Your task to perform on an android device: open app "Nova Launcher" (install if not already installed) Image 0: 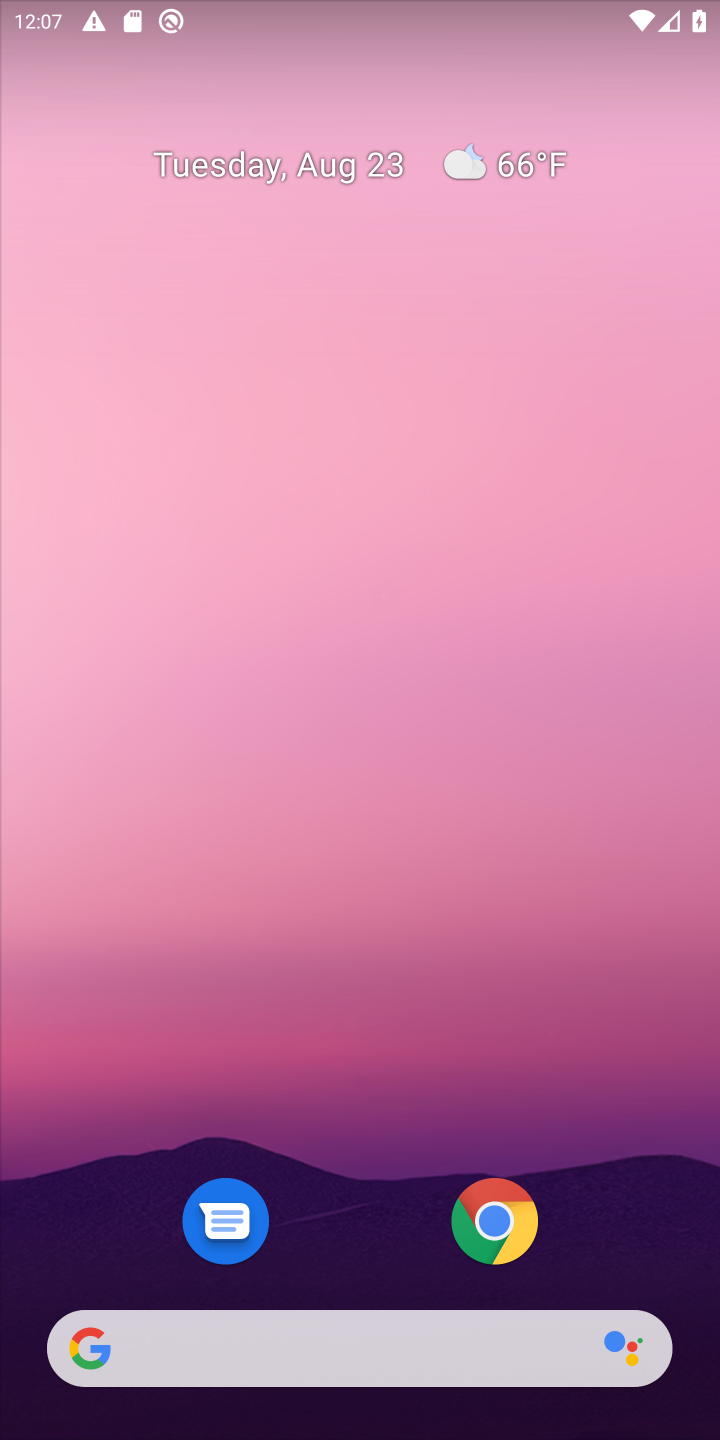
Step 0: drag from (394, 1223) to (405, 13)
Your task to perform on an android device: open app "Nova Launcher" (install if not already installed) Image 1: 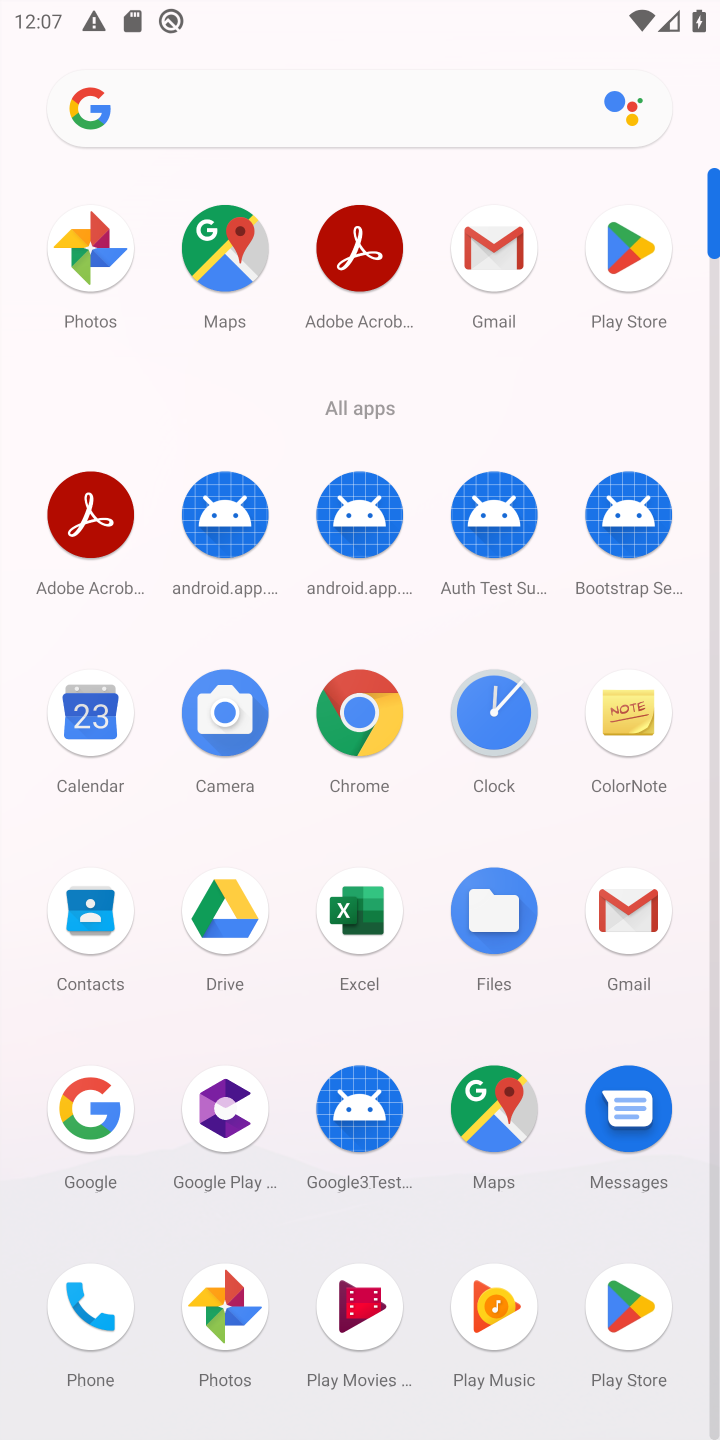
Step 1: click (615, 246)
Your task to perform on an android device: open app "Nova Launcher" (install if not already installed) Image 2: 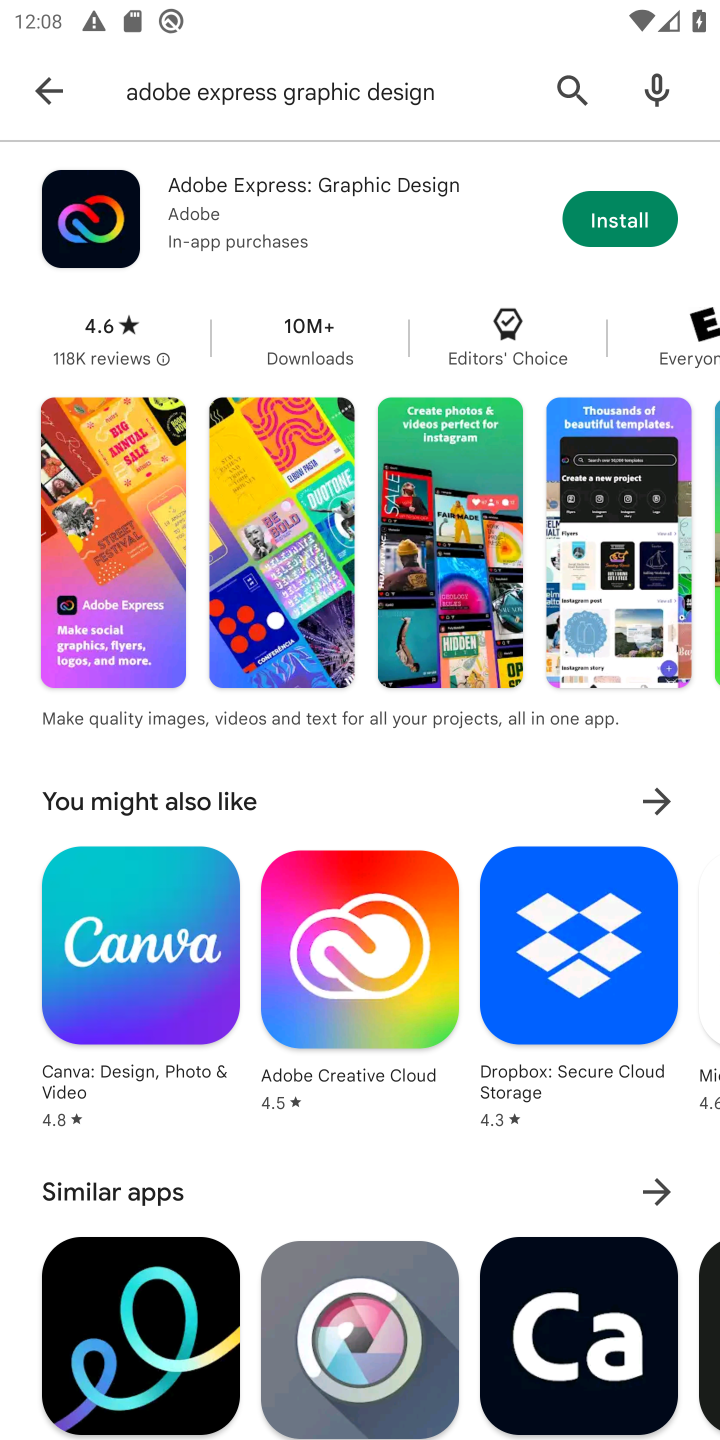
Step 2: click (565, 79)
Your task to perform on an android device: open app "Nova Launcher" (install if not already installed) Image 3: 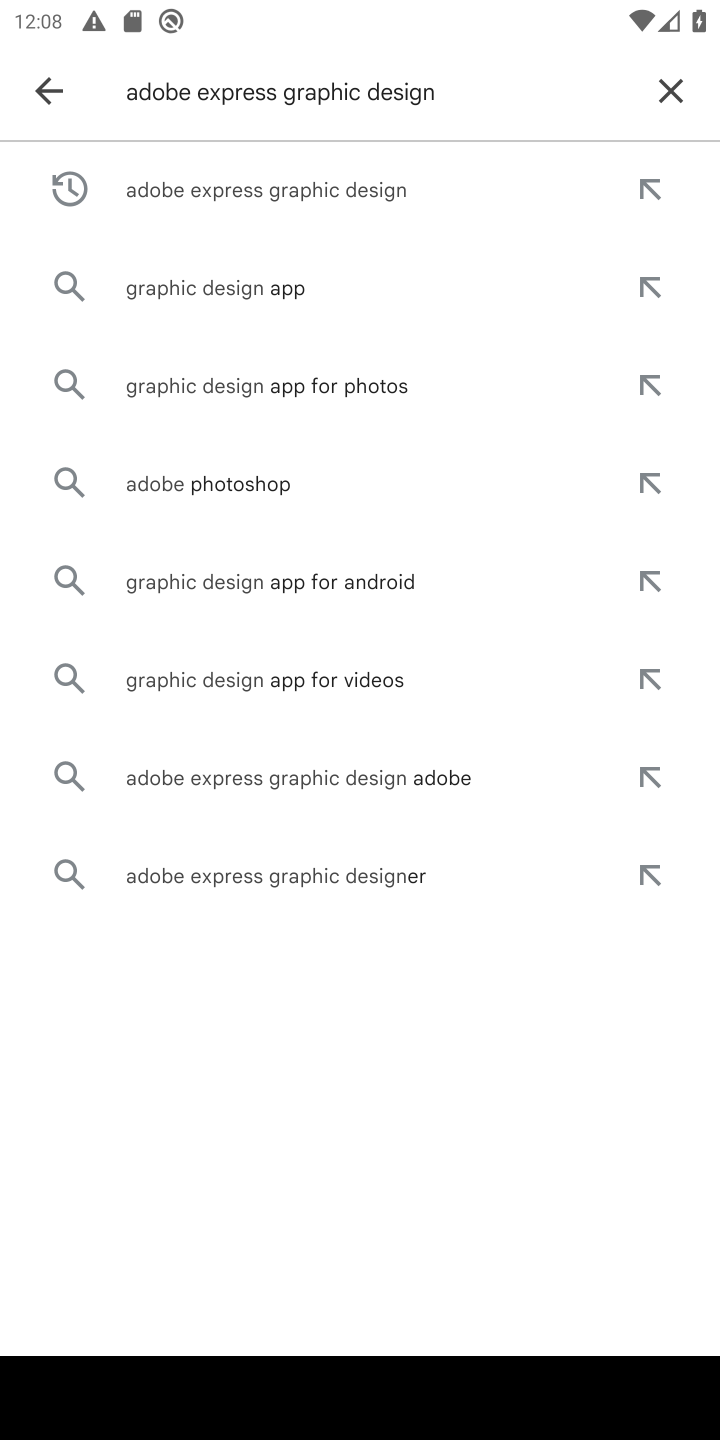
Step 3: click (680, 72)
Your task to perform on an android device: open app "Nova Launcher" (install if not already installed) Image 4: 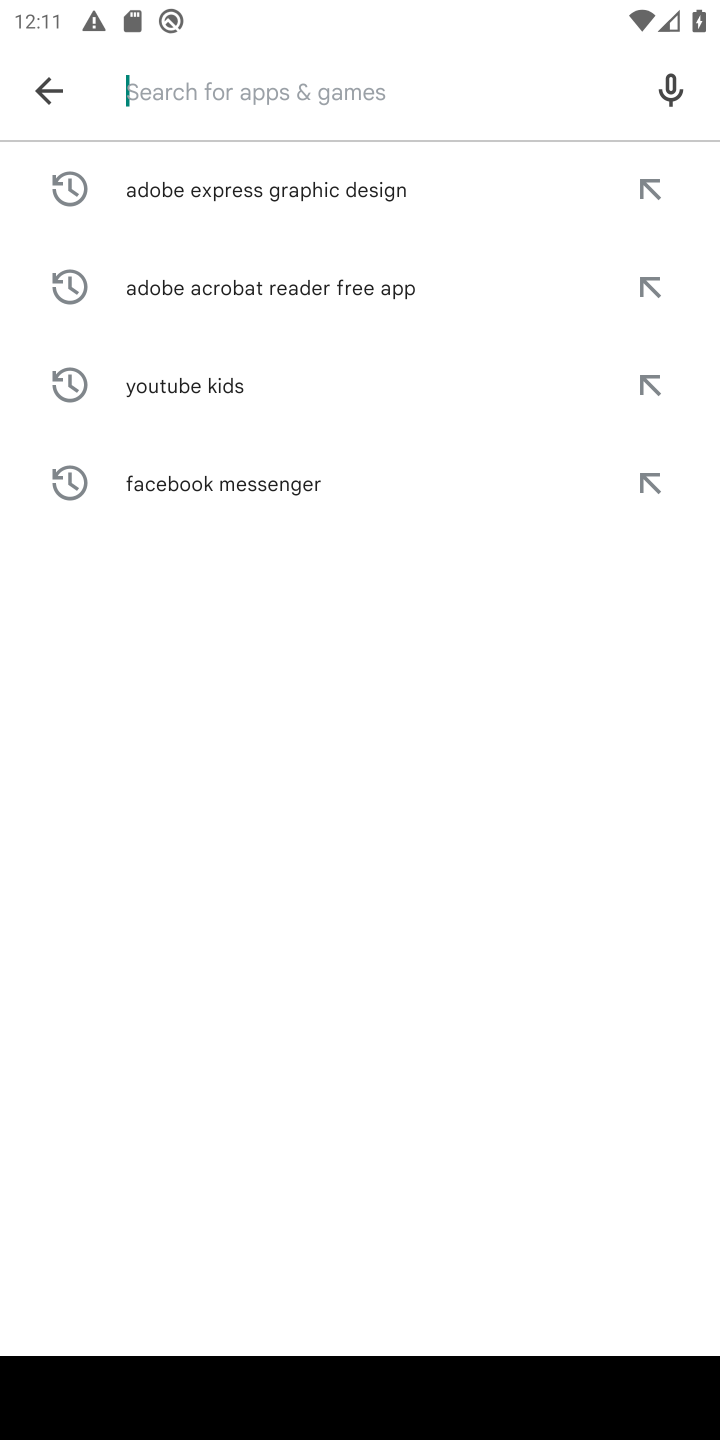
Step 4: click (327, 741)
Your task to perform on an android device: open app "Nova Launcher" (install if not already installed) Image 5: 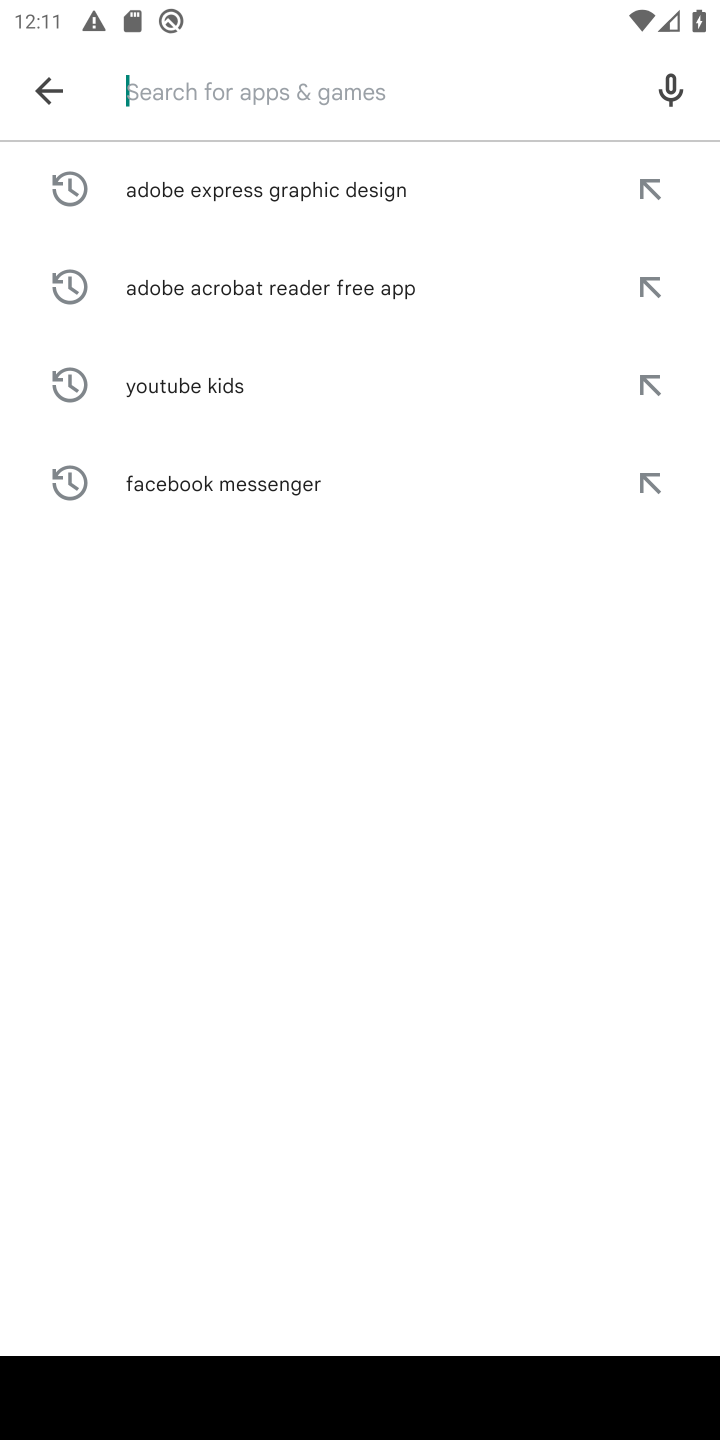
Step 5: type "Nova Launcher"
Your task to perform on an android device: open app "Nova Launcher" (install if not already installed) Image 6: 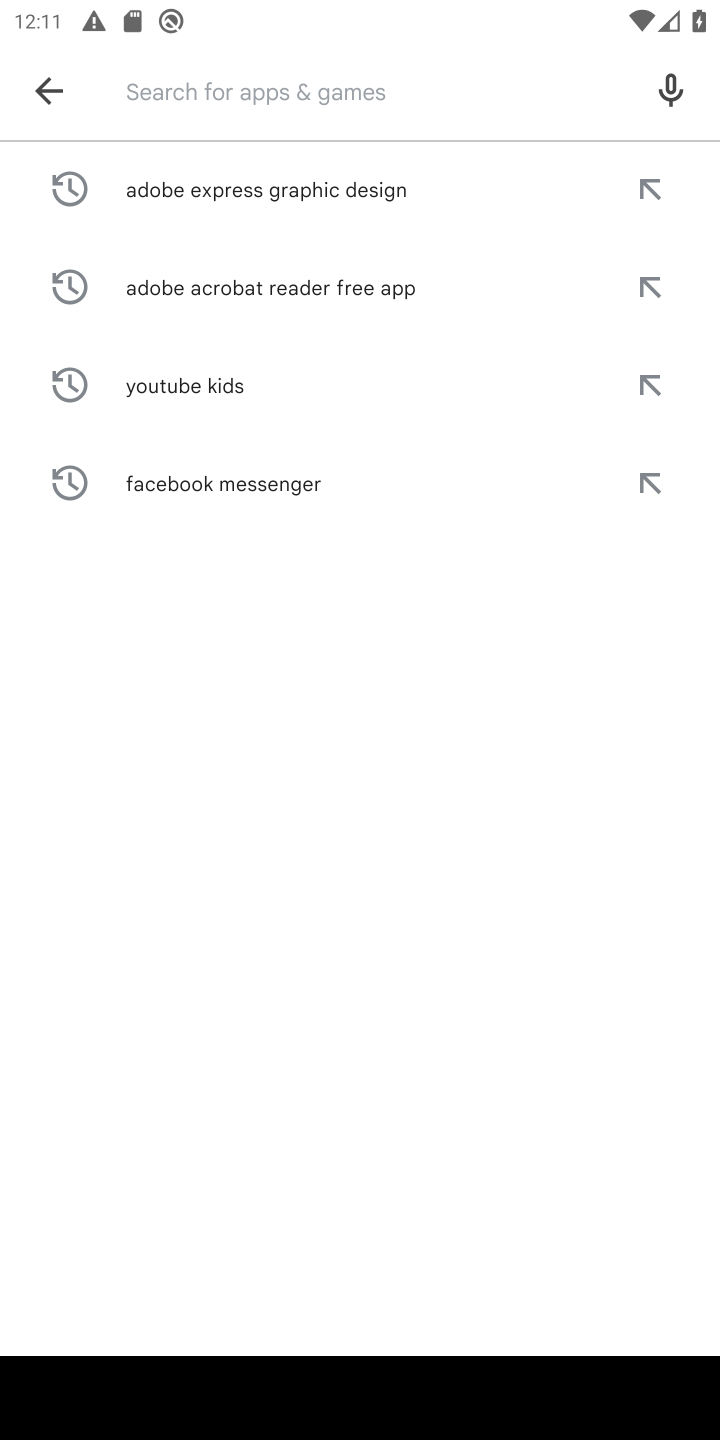
Step 6: click (479, 830)
Your task to perform on an android device: open app "Nova Launcher" (install if not already installed) Image 7: 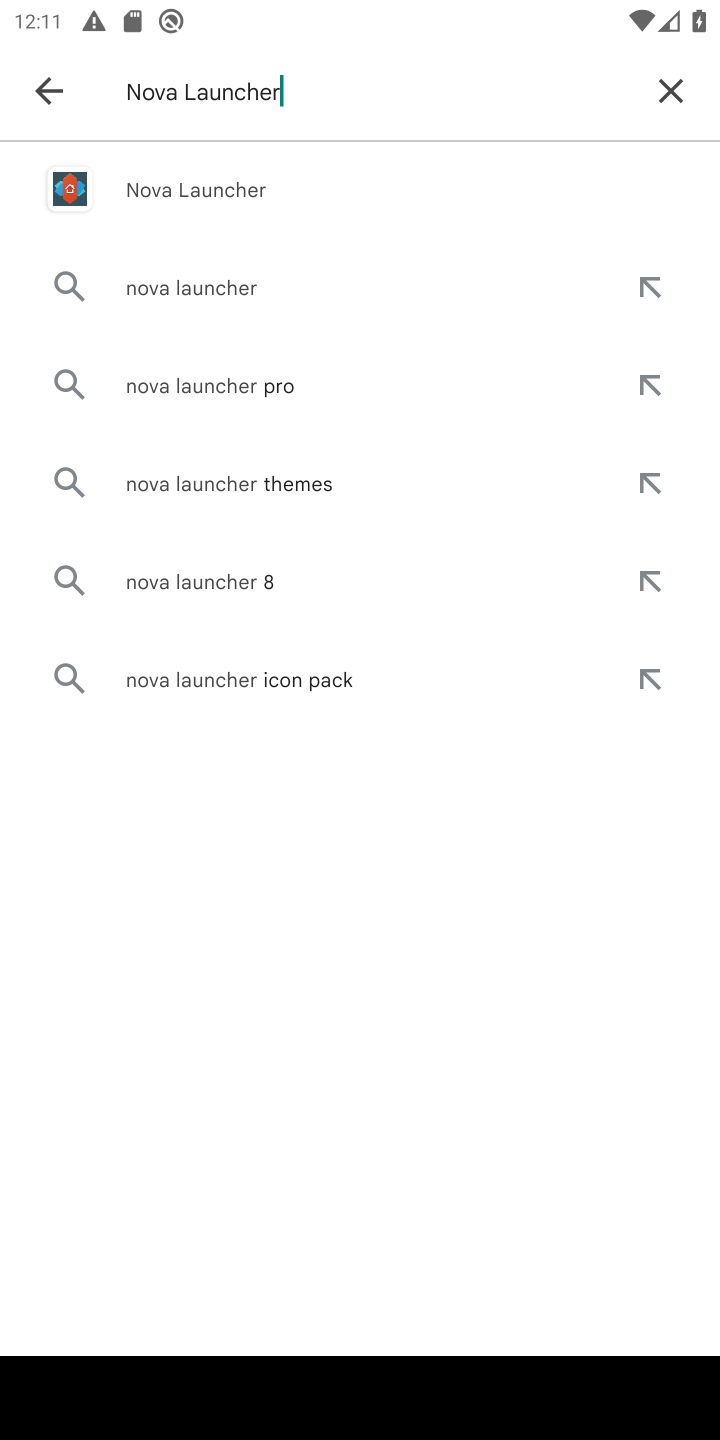
Step 7: click (287, 186)
Your task to perform on an android device: open app "Nova Launcher" (install if not already installed) Image 8: 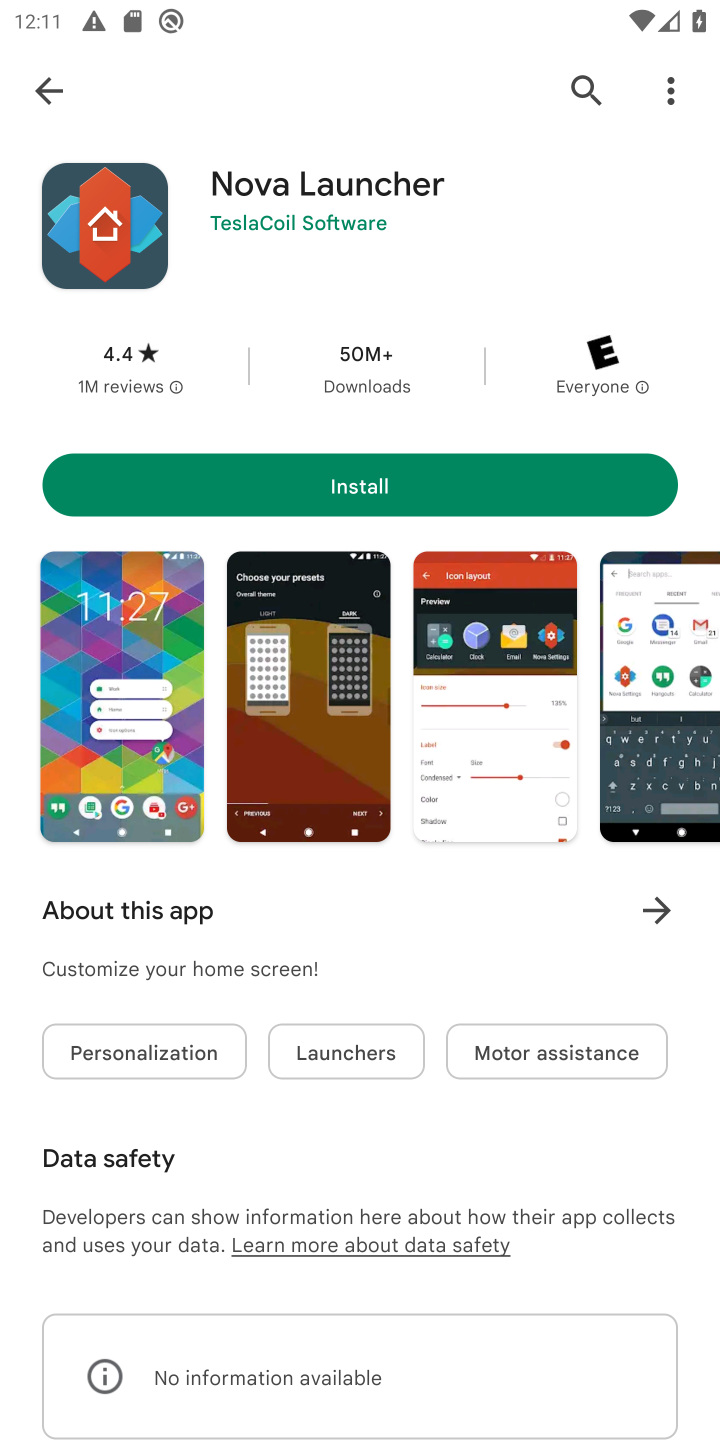
Step 8: click (372, 493)
Your task to perform on an android device: open app "Nova Launcher" (install if not already installed) Image 9: 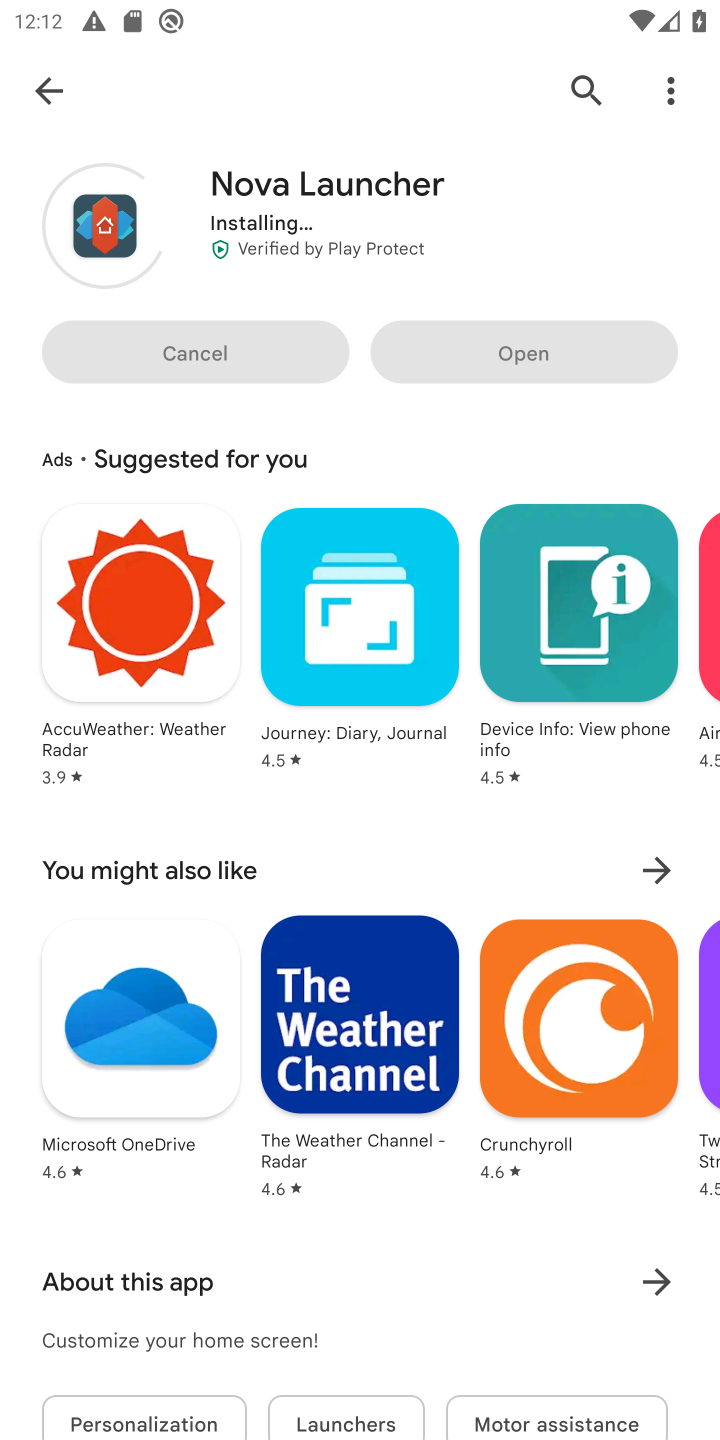
Step 9: press back button
Your task to perform on an android device: open app "Nova Launcher" (install if not already installed) Image 10: 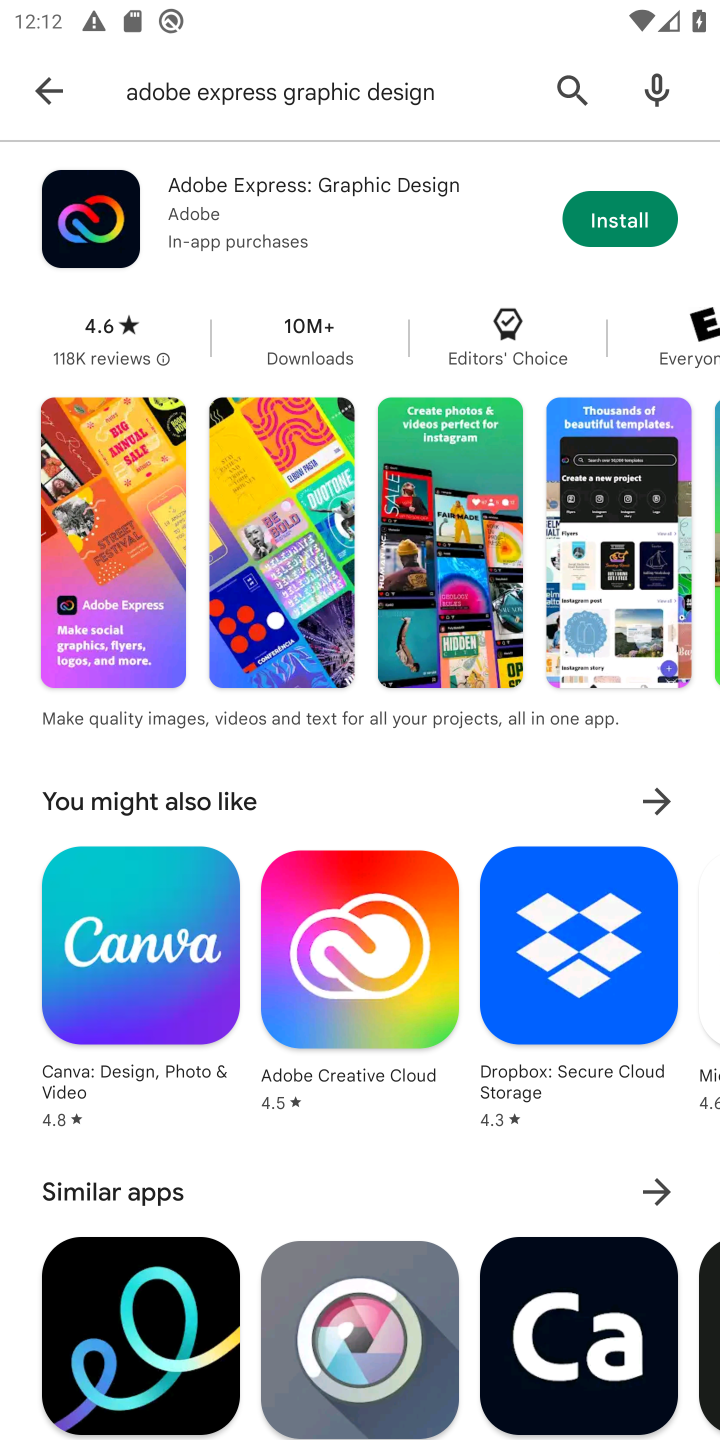
Step 10: click (623, 218)
Your task to perform on an android device: open app "Nova Launcher" (install if not already installed) Image 11: 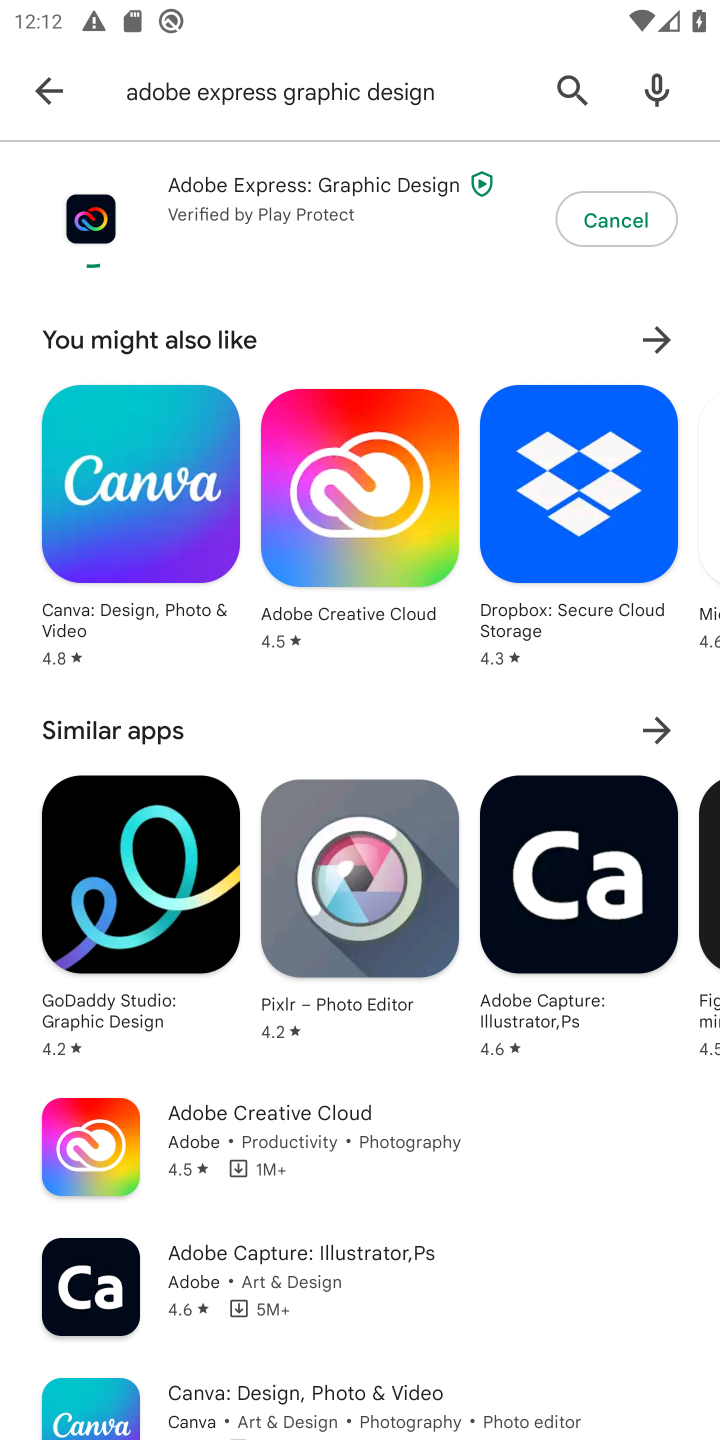
Step 11: click (581, 225)
Your task to perform on an android device: open app "Nova Launcher" (install if not already installed) Image 12: 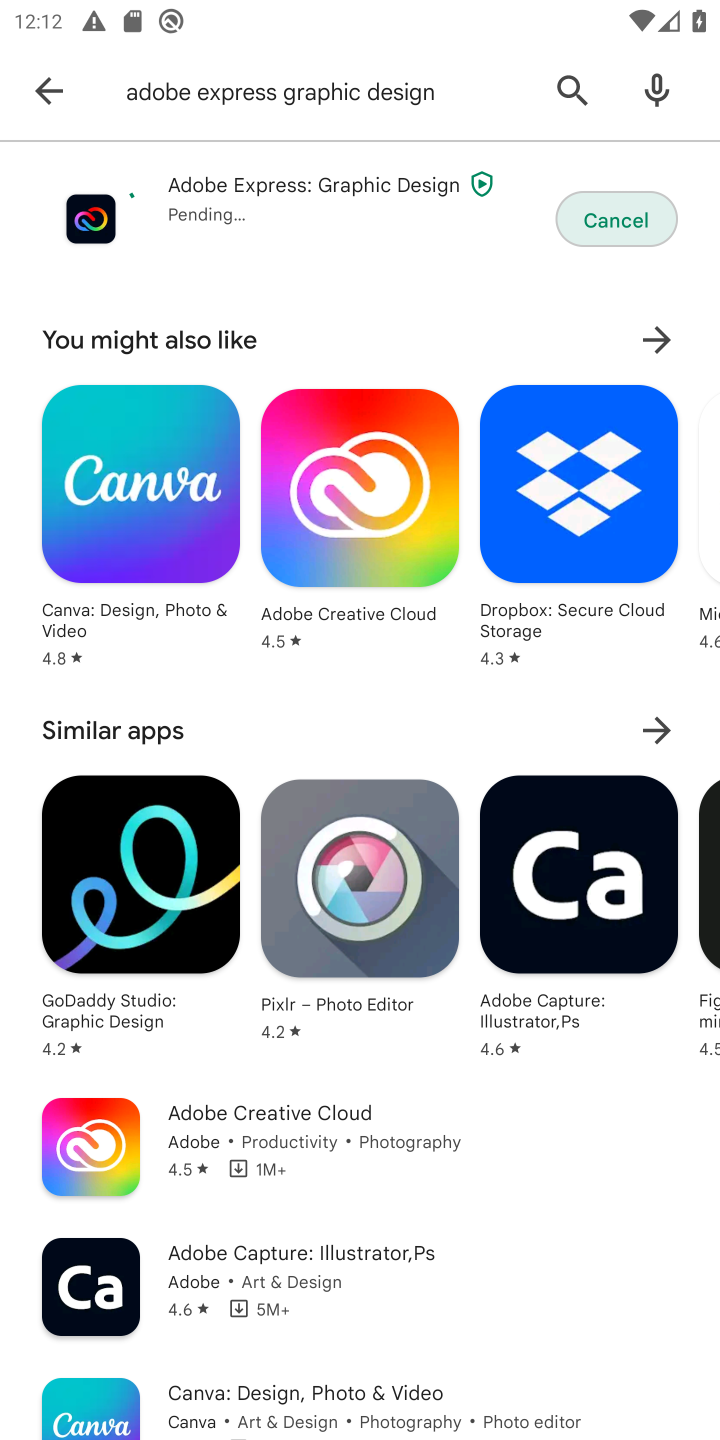
Step 12: click (565, 89)
Your task to perform on an android device: open app "Nova Launcher" (install if not already installed) Image 13: 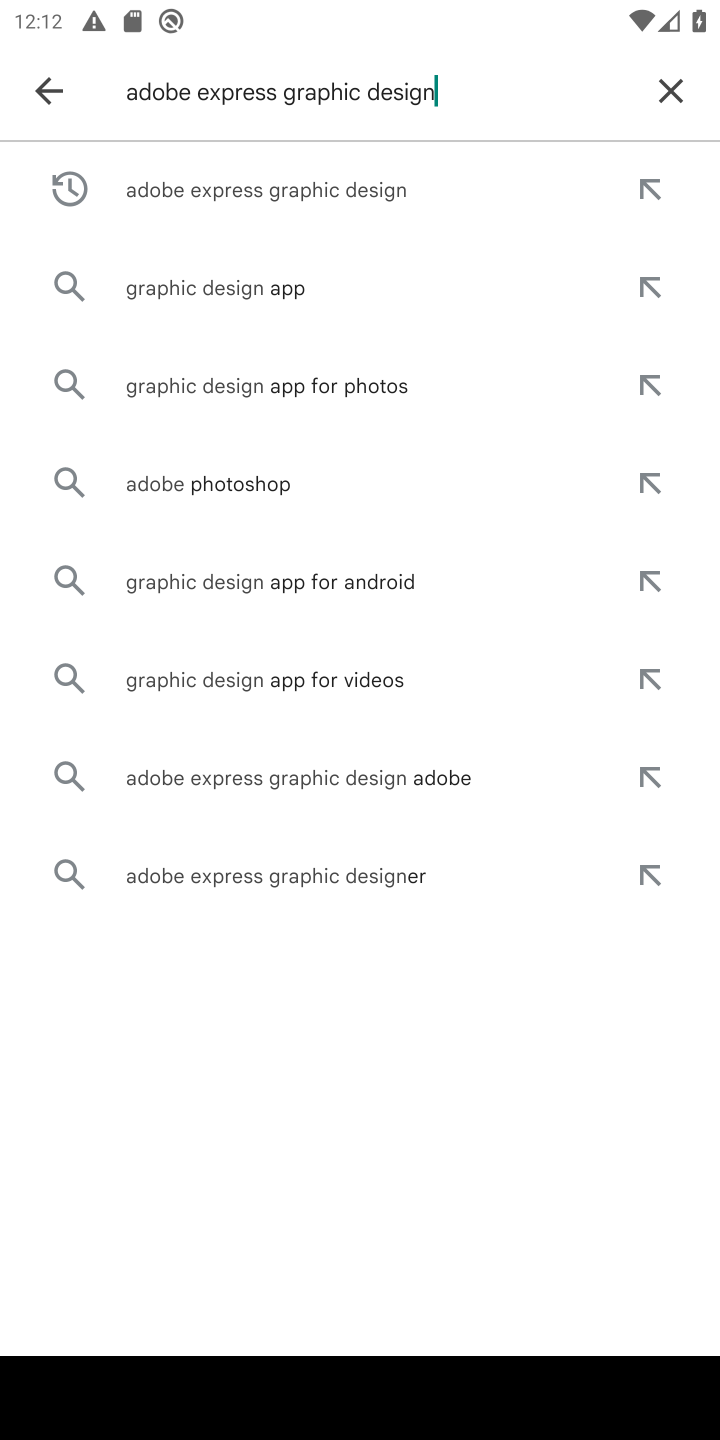
Step 13: click (681, 92)
Your task to perform on an android device: open app "Nova Launcher" (install if not already installed) Image 14: 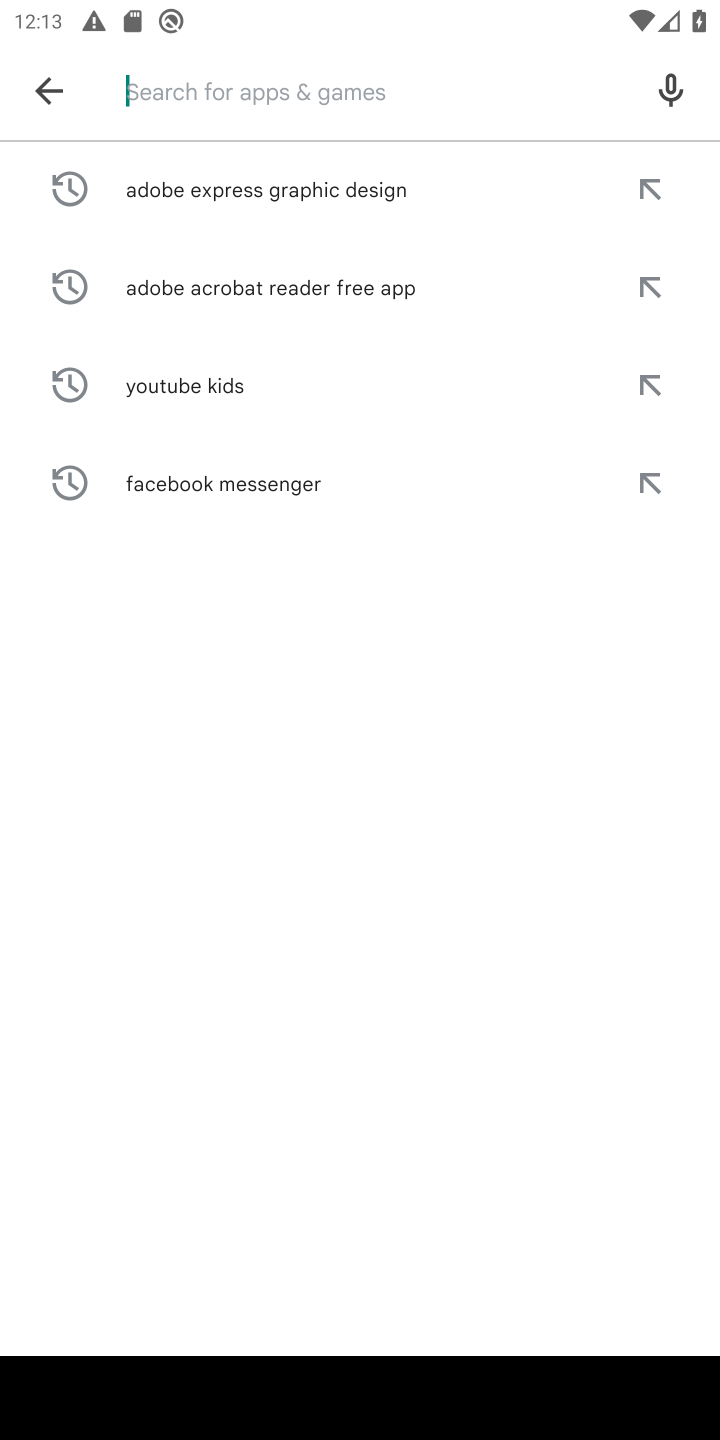
Step 14: type "Nova Launcher"
Your task to perform on an android device: open app "Nova Launcher" (install if not already installed) Image 15: 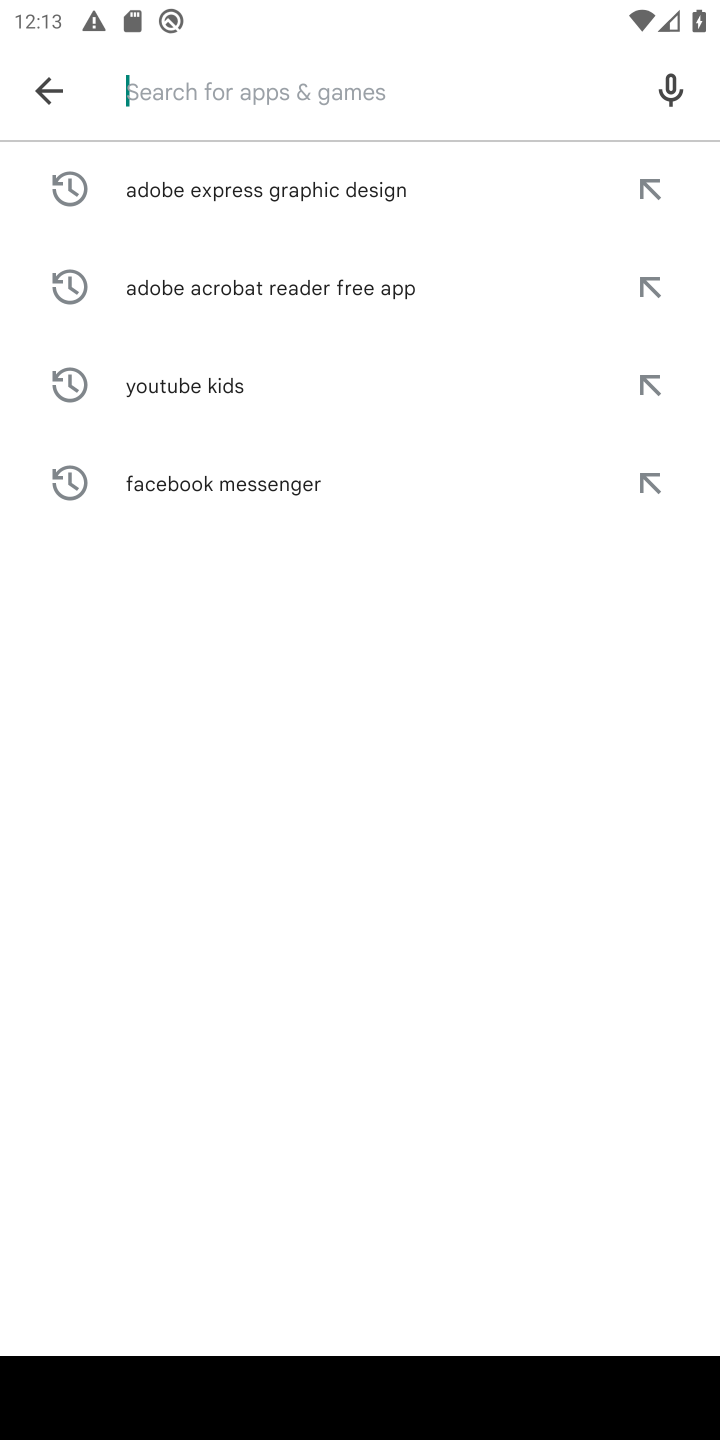
Step 15: click (379, 841)
Your task to perform on an android device: open app "Nova Launcher" (install if not already installed) Image 16: 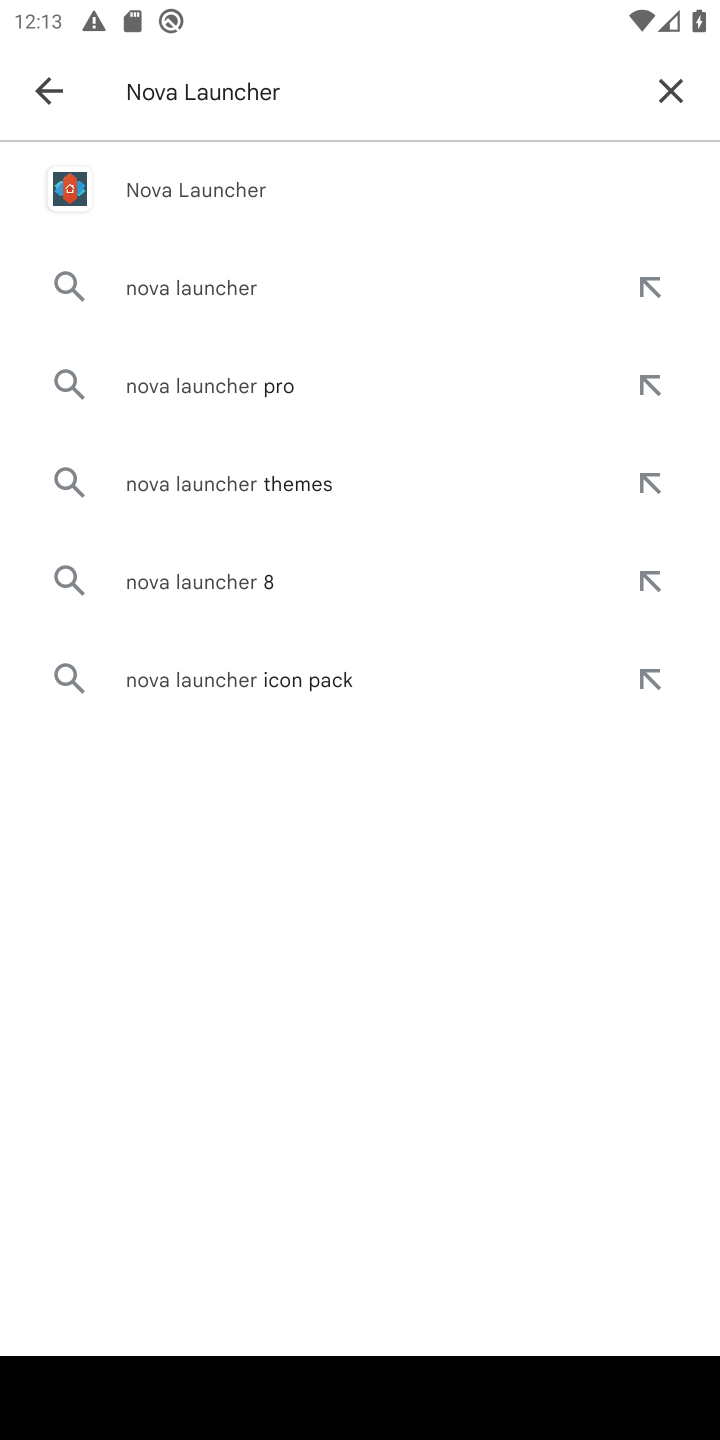
Step 16: click (230, 178)
Your task to perform on an android device: open app "Nova Launcher" (install if not already installed) Image 17: 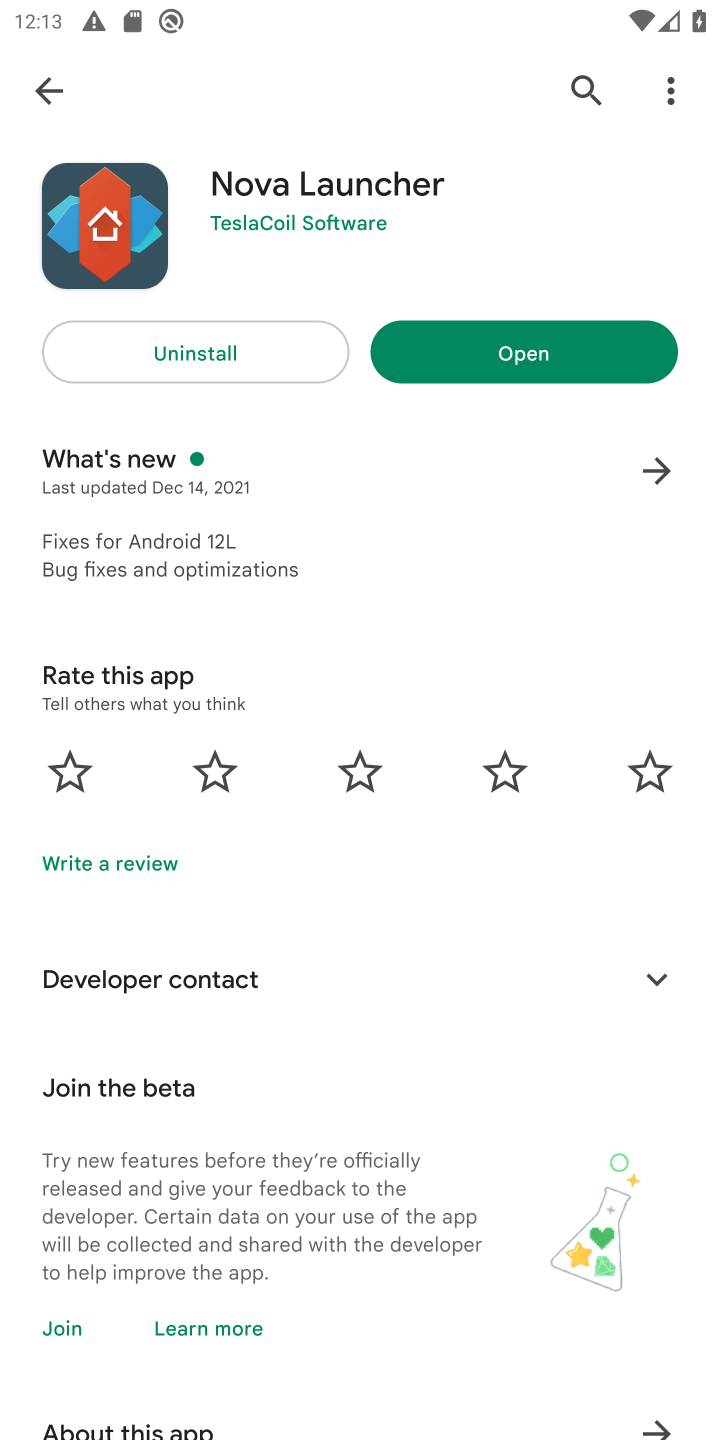
Step 17: click (524, 360)
Your task to perform on an android device: open app "Nova Launcher" (install if not already installed) Image 18: 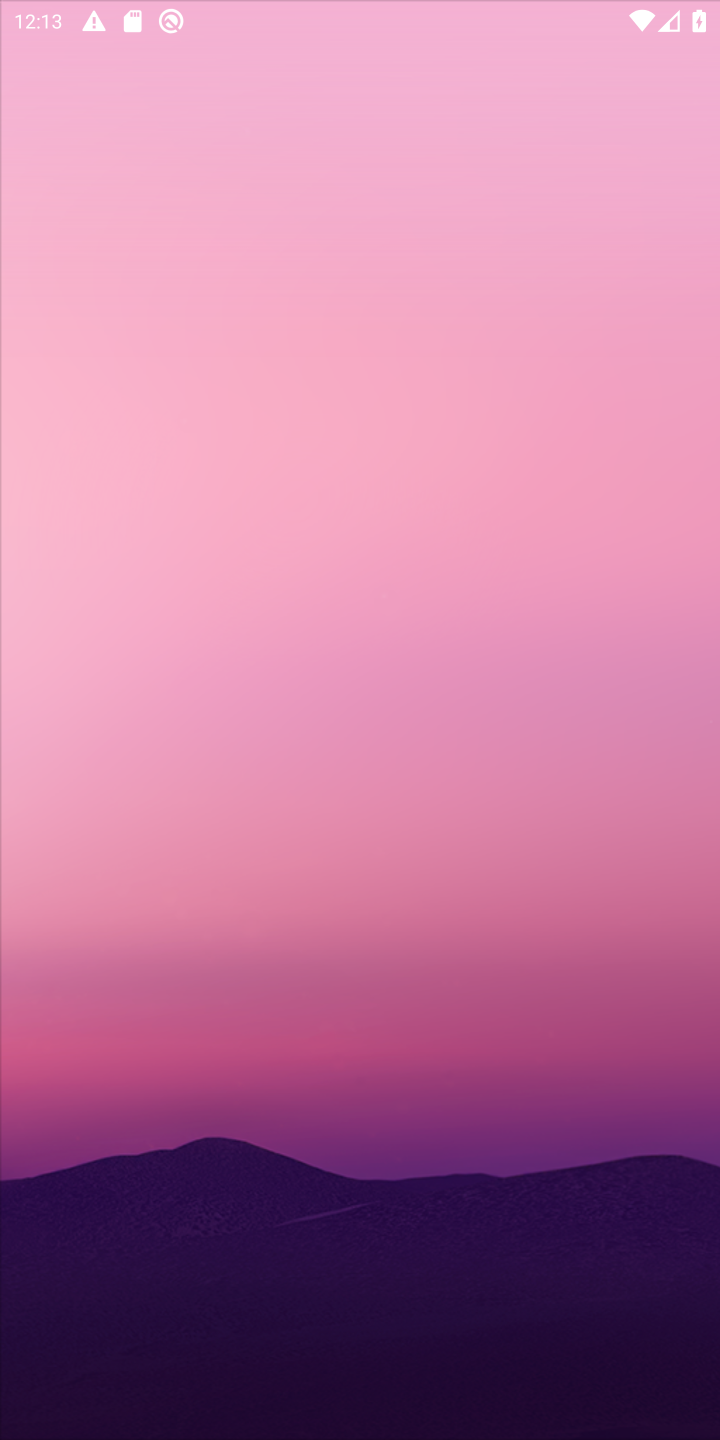
Step 18: task complete